Your task to perform on an android device: stop showing notifications on the lock screen Image 0: 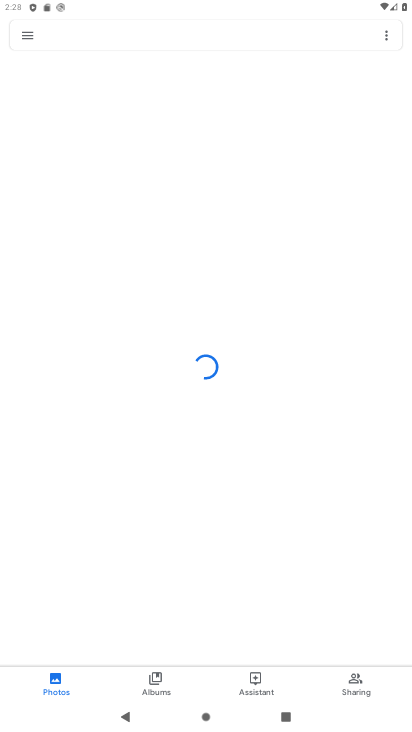
Step 0: press home button
Your task to perform on an android device: stop showing notifications on the lock screen Image 1: 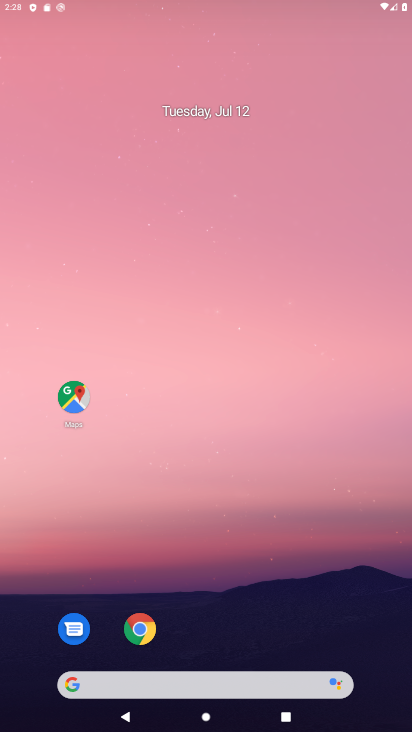
Step 1: drag from (239, 650) to (228, 93)
Your task to perform on an android device: stop showing notifications on the lock screen Image 2: 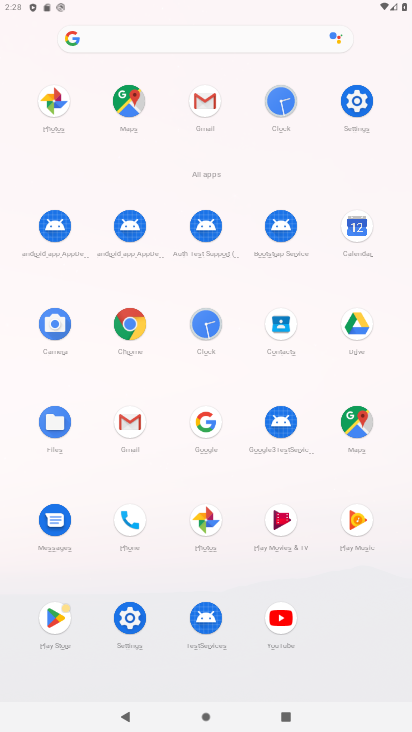
Step 2: click (358, 101)
Your task to perform on an android device: stop showing notifications on the lock screen Image 3: 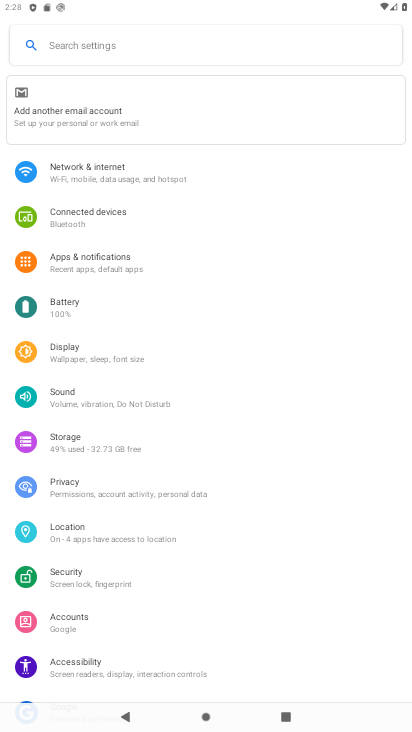
Step 3: click (125, 266)
Your task to perform on an android device: stop showing notifications on the lock screen Image 4: 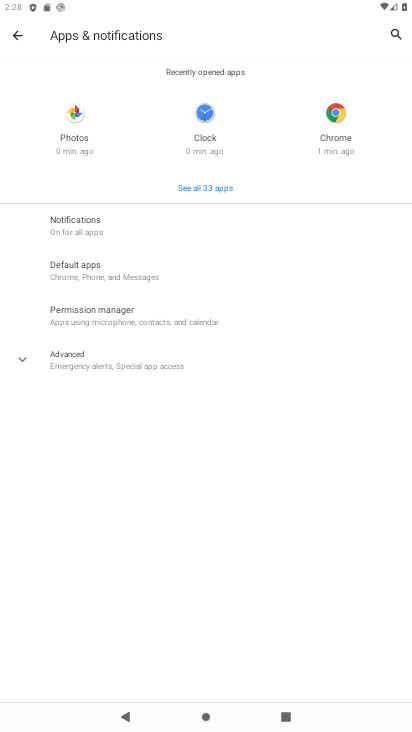
Step 4: click (94, 230)
Your task to perform on an android device: stop showing notifications on the lock screen Image 5: 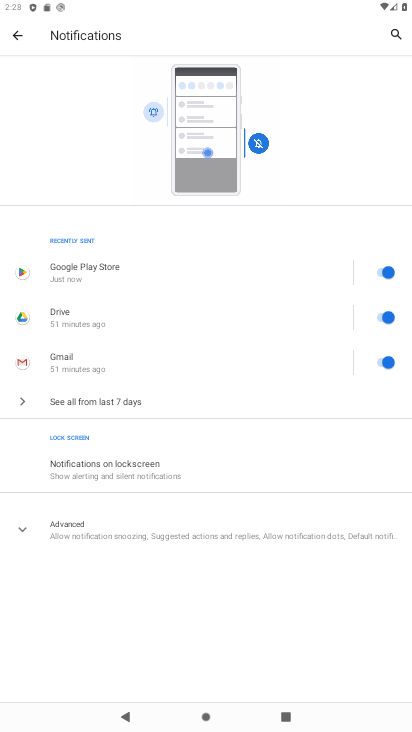
Step 5: click (76, 472)
Your task to perform on an android device: stop showing notifications on the lock screen Image 6: 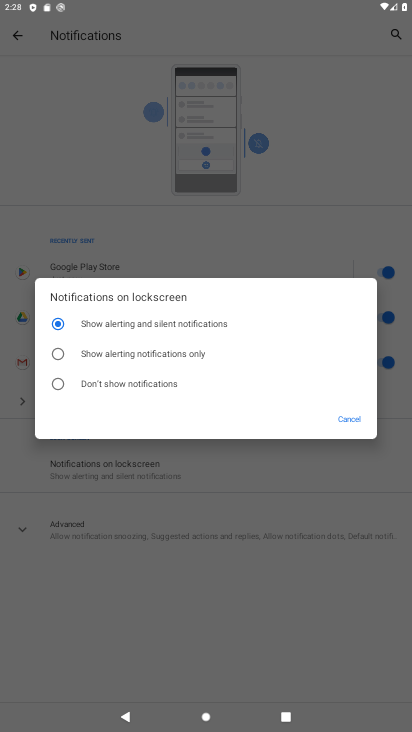
Step 6: click (66, 391)
Your task to perform on an android device: stop showing notifications on the lock screen Image 7: 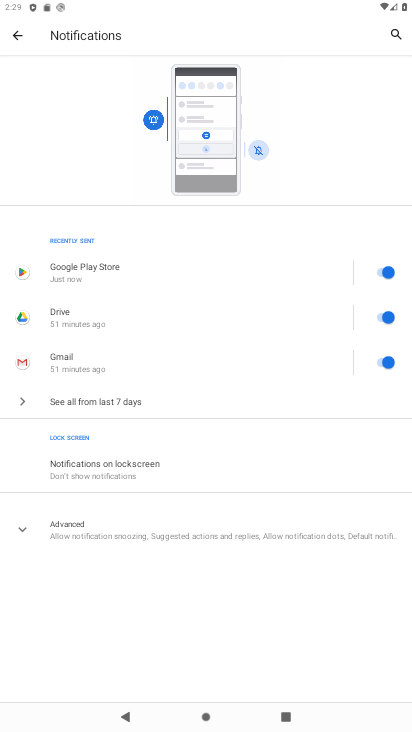
Step 7: task complete